Your task to perform on an android device: turn on translation in the chrome app Image 0: 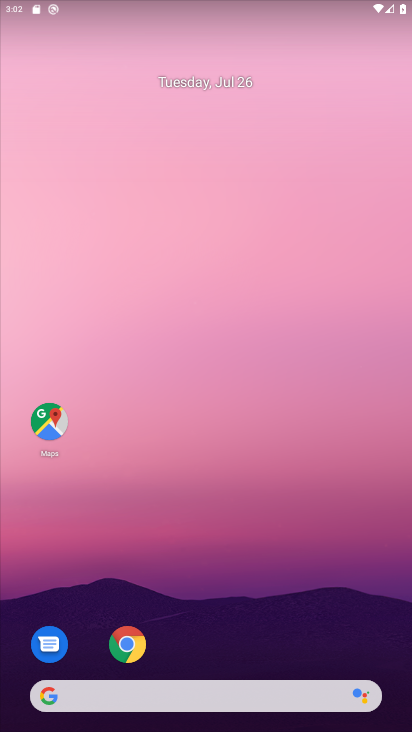
Step 0: click (139, 642)
Your task to perform on an android device: turn on translation in the chrome app Image 1: 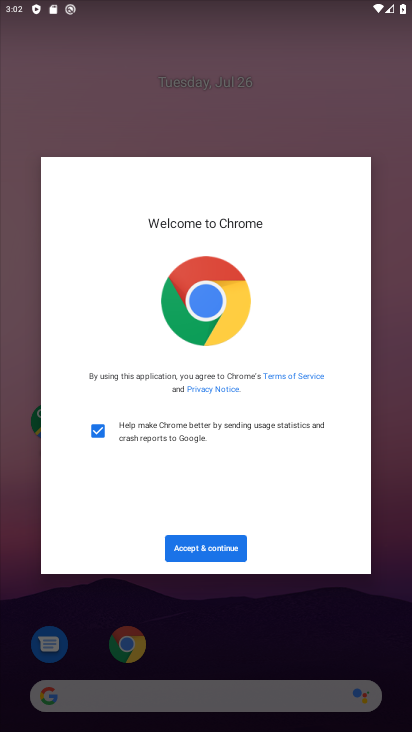
Step 1: click (213, 550)
Your task to perform on an android device: turn on translation in the chrome app Image 2: 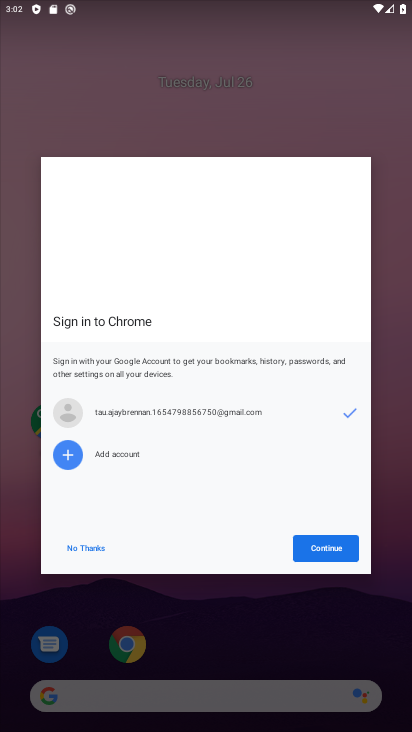
Step 2: click (303, 547)
Your task to perform on an android device: turn on translation in the chrome app Image 3: 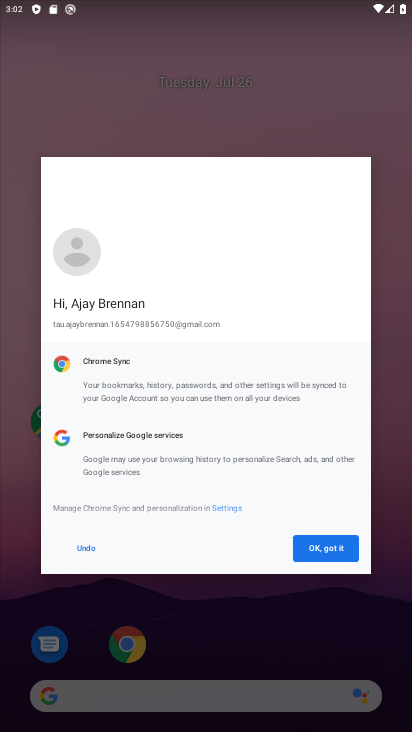
Step 3: click (337, 543)
Your task to perform on an android device: turn on translation in the chrome app Image 4: 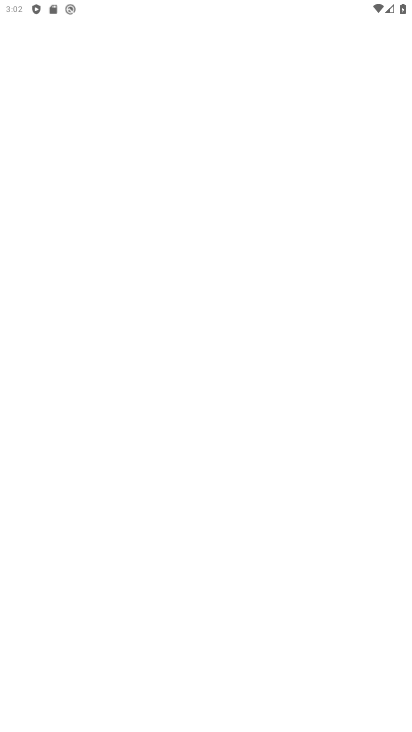
Step 4: click (337, 545)
Your task to perform on an android device: turn on translation in the chrome app Image 5: 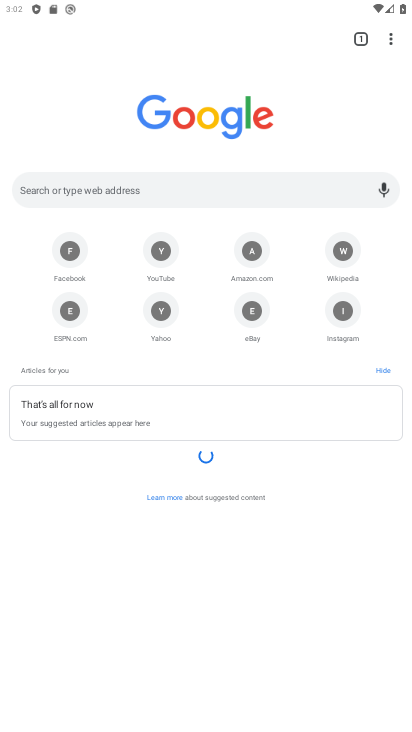
Step 5: click (399, 40)
Your task to perform on an android device: turn on translation in the chrome app Image 6: 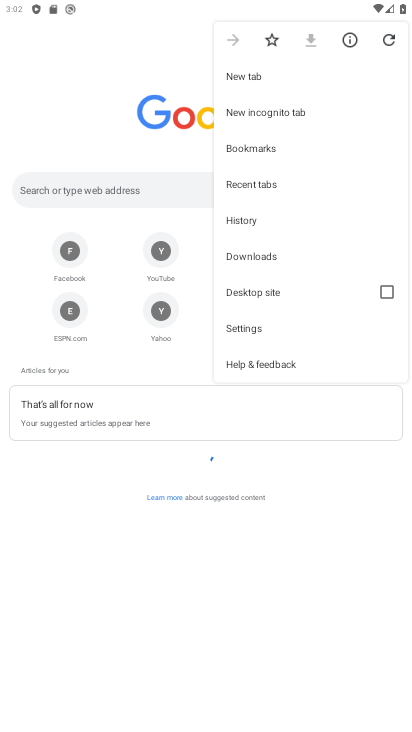
Step 6: click (258, 328)
Your task to perform on an android device: turn on translation in the chrome app Image 7: 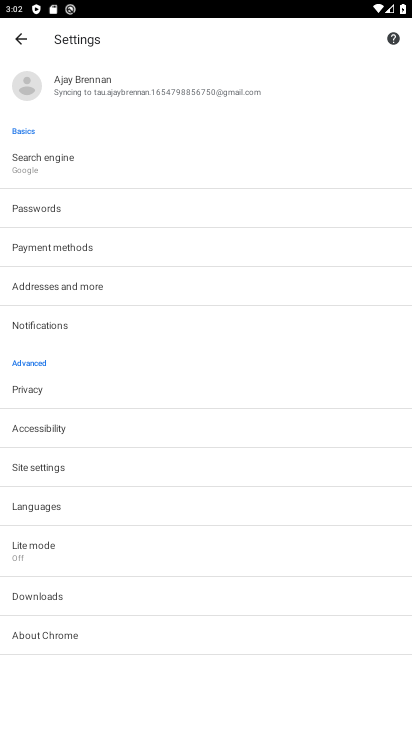
Step 7: click (81, 497)
Your task to perform on an android device: turn on translation in the chrome app Image 8: 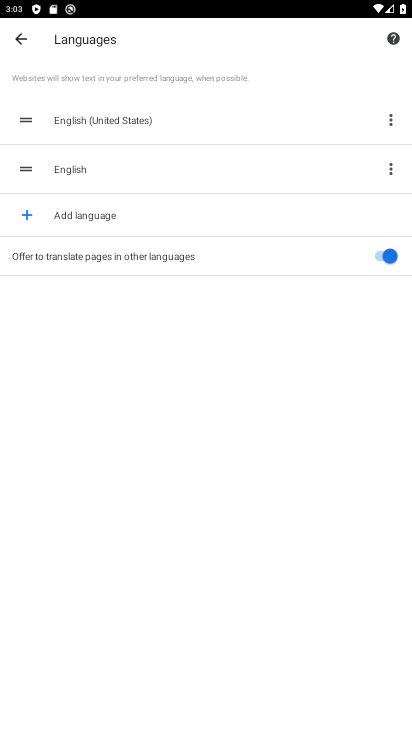
Step 8: task complete